Your task to perform on an android device: turn off priority inbox in the gmail app Image 0: 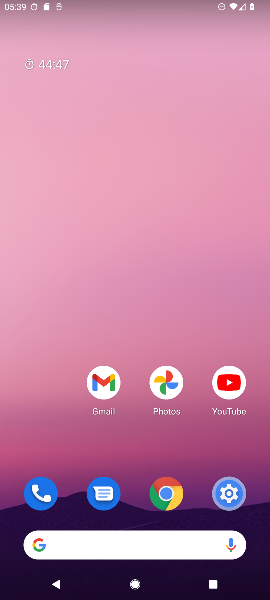
Step 0: drag from (70, 470) to (76, 110)
Your task to perform on an android device: turn off priority inbox in the gmail app Image 1: 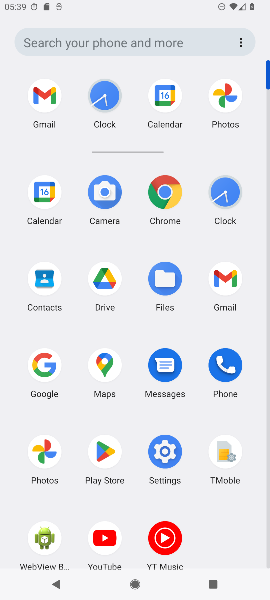
Step 1: click (224, 282)
Your task to perform on an android device: turn off priority inbox in the gmail app Image 2: 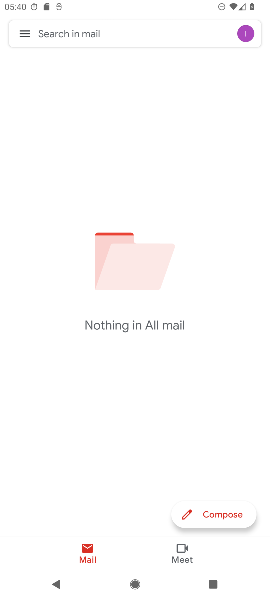
Step 2: click (26, 31)
Your task to perform on an android device: turn off priority inbox in the gmail app Image 3: 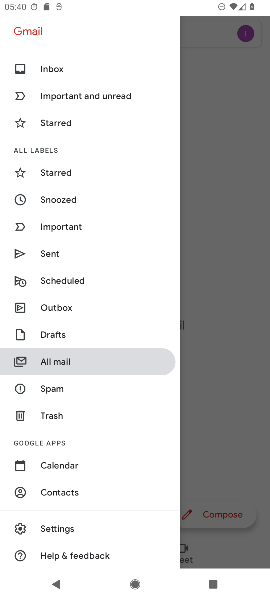
Step 3: click (79, 531)
Your task to perform on an android device: turn off priority inbox in the gmail app Image 4: 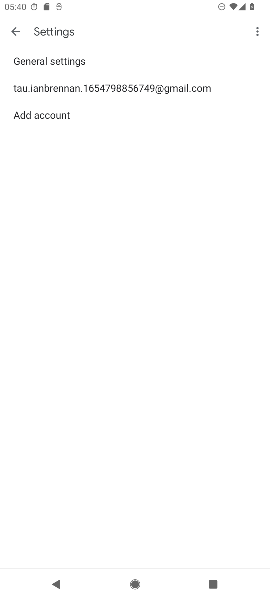
Step 4: click (148, 87)
Your task to perform on an android device: turn off priority inbox in the gmail app Image 5: 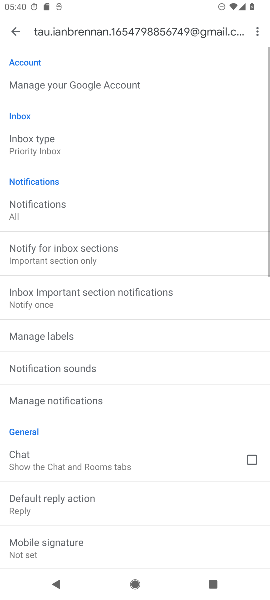
Step 5: drag from (205, 353) to (221, 252)
Your task to perform on an android device: turn off priority inbox in the gmail app Image 6: 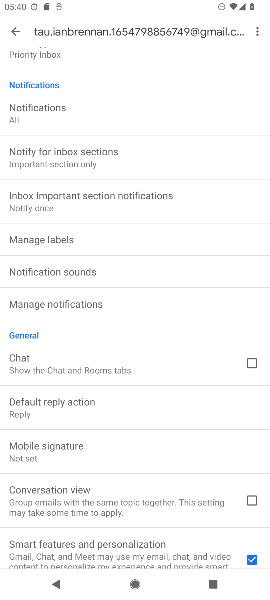
Step 6: drag from (187, 389) to (200, 261)
Your task to perform on an android device: turn off priority inbox in the gmail app Image 7: 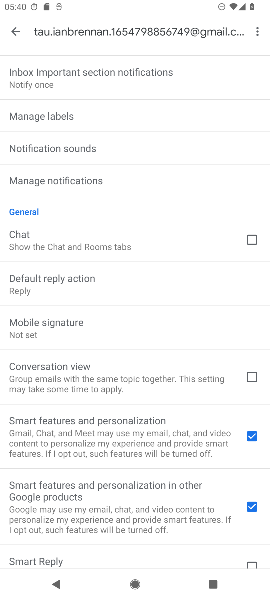
Step 7: drag from (179, 409) to (189, 244)
Your task to perform on an android device: turn off priority inbox in the gmail app Image 8: 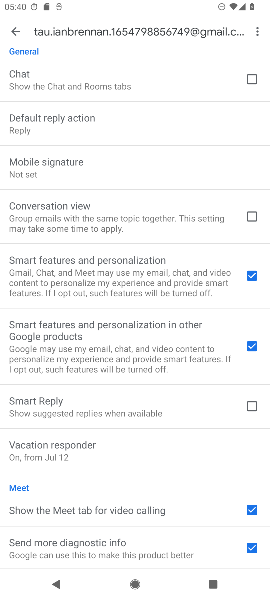
Step 8: drag from (187, 176) to (198, 289)
Your task to perform on an android device: turn off priority inbox in the gmail app Image 9: 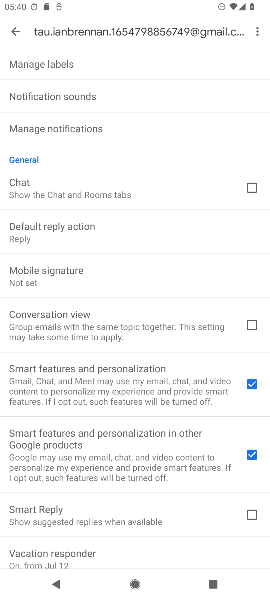
Step 9: drag from (206, 156) to (205, 255)
Your task to perform on an android device: turn off priority inbox in the gmail app Image 10: 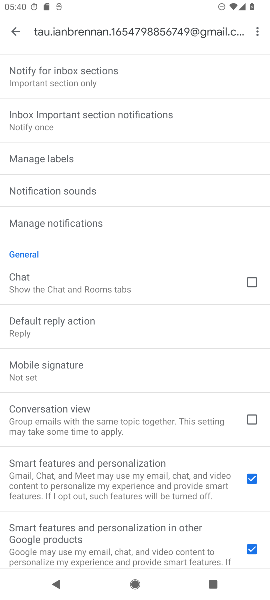
Step 10: drag from (205, 86) to (209, 250)
Your task to perform on an android device: turn off priority inbox in the gmail app Image 11: 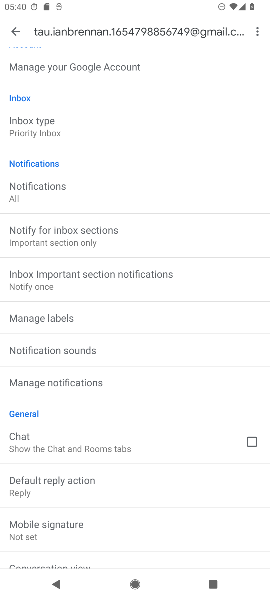
Step 11: drag from (191, 68) to (197, 252)
Your task to perform on an android device: turn off priority inbox in the gmail app Image 12: 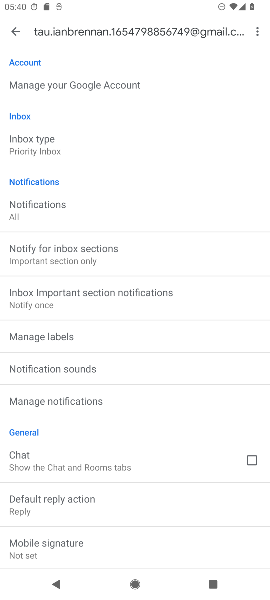
Step 12: click (45, 148)
Your task to perform on an android device: turn off priority inbox in the gmail app Image 13: 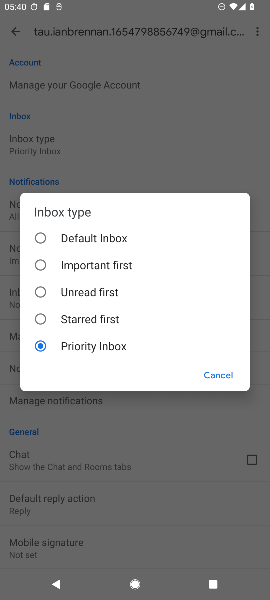
Step 13: click (134, 260)
Your task to perform on an android device: turn off priority inbox in the gmail app Image 14: 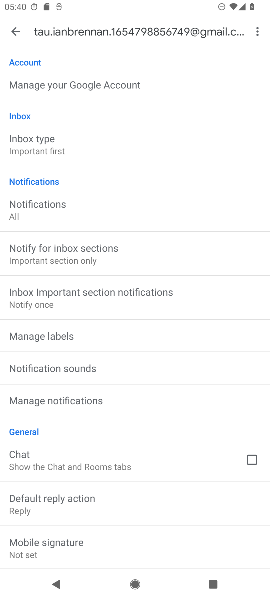
Step 14: task complete